Your task to perform on an android device: Open calendar and show me the second week of next month Image 0: 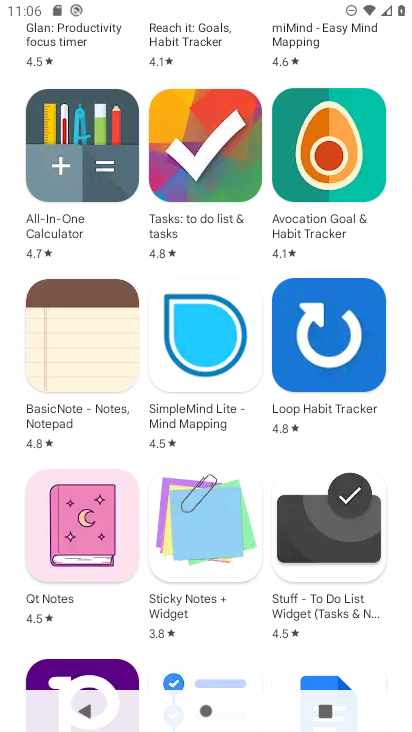
Step 0: press home button
Your task to perform on an android device: Open calendar and show me the second week of next month Image 1: 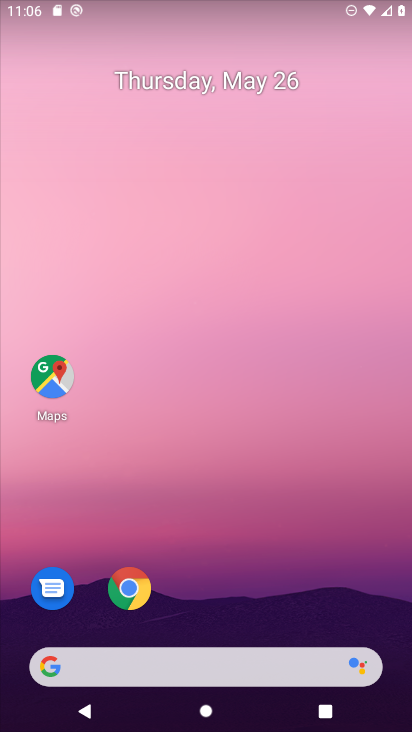
Step 1: drag from (375, 617) to (306, 49)
Your task to perform on an android device: Open calendar and show me the second week of next month Image 2: 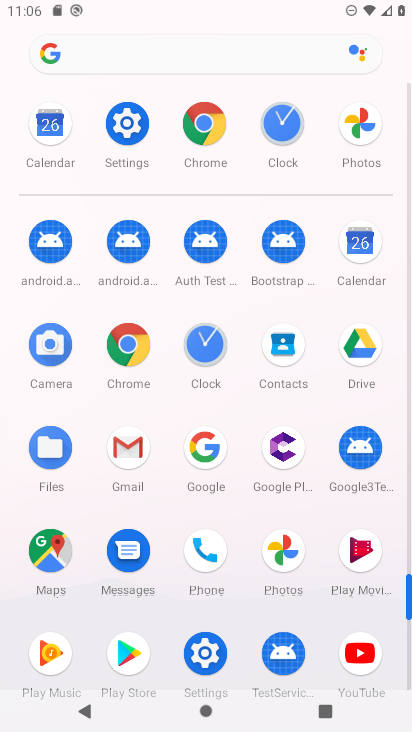
Step 2: click (407, 666)
Your task to perform on an android device: Open calendar and show me the second week of next month Image 3: 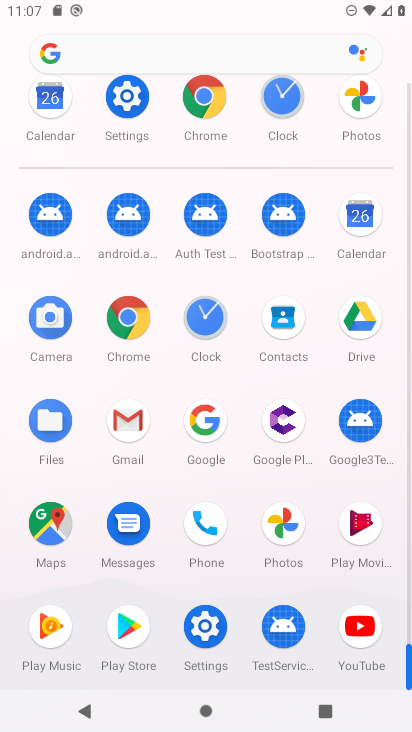
Step 3: click (359, 217)
Your task to perform on an android device: Open calendar and show me the second week of next month Image 4: 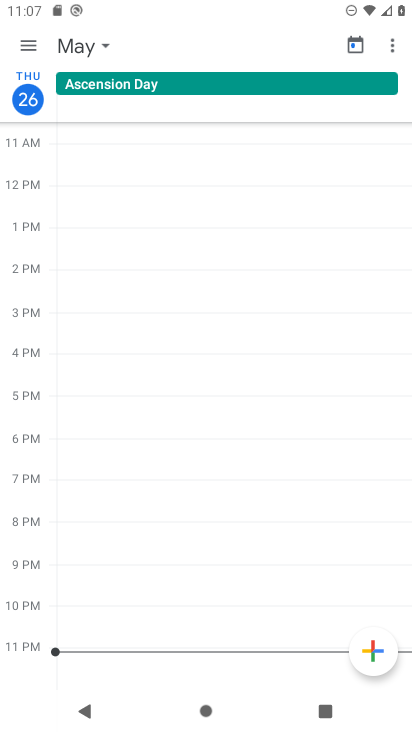
Step 4: click (29, 43)
Your task to perform on an android device: Open calendar and show me the second week of next month Image 5: 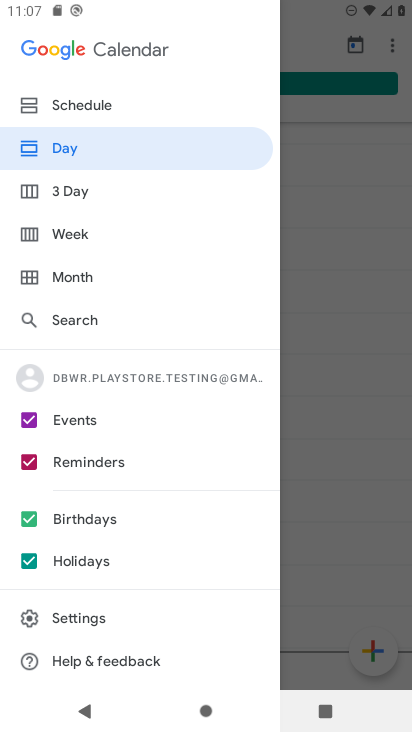
Step 5: click (71, 231)
Your task to perform on an android device: Open calendar and show me the second week of next month Image 6: 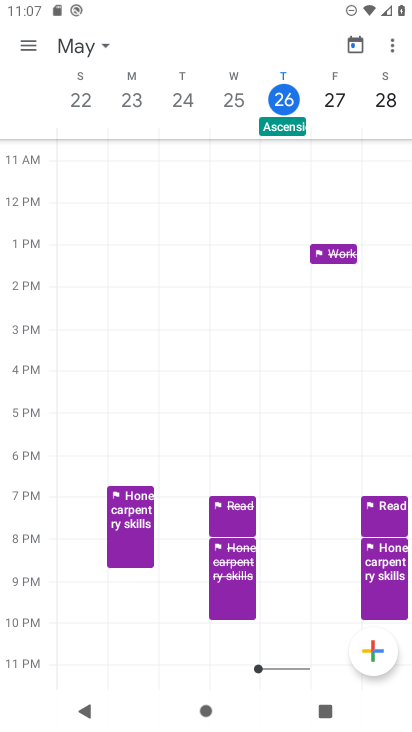
Step 6: click (102, 48)
Your task to perform on an android device: Open calendar and show me the second week of next month Image 7: 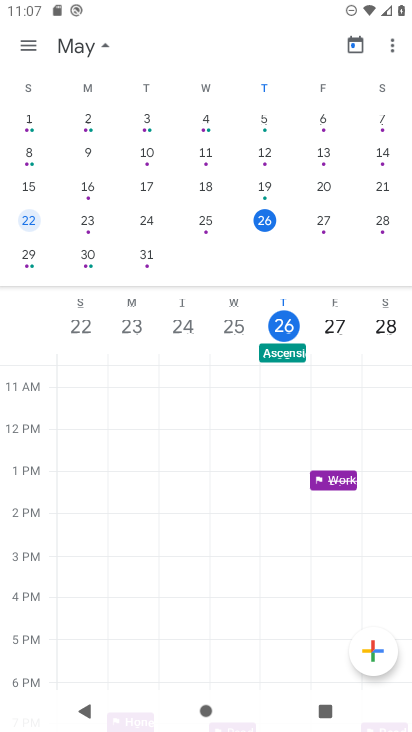
Step 7: drag from (374, 181) to (47, 171)
Your task to perform on an android device: Open calendar and show me the second week of next month Image 8: 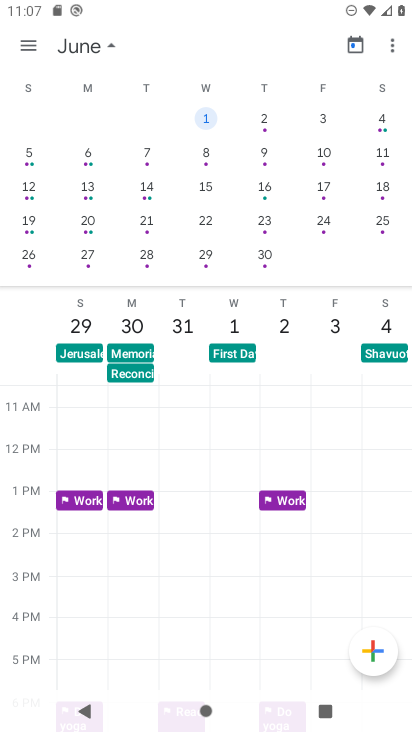
Step 8: click (18, 192)
Your task to perform on an android device: Open calendar and show me the second week of next month Image 9: 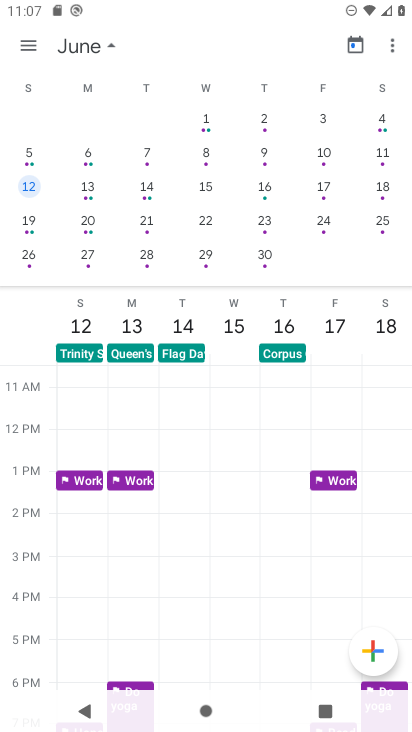
Step 9: task complete